Your task to perform on an android device: check android version Image 0: 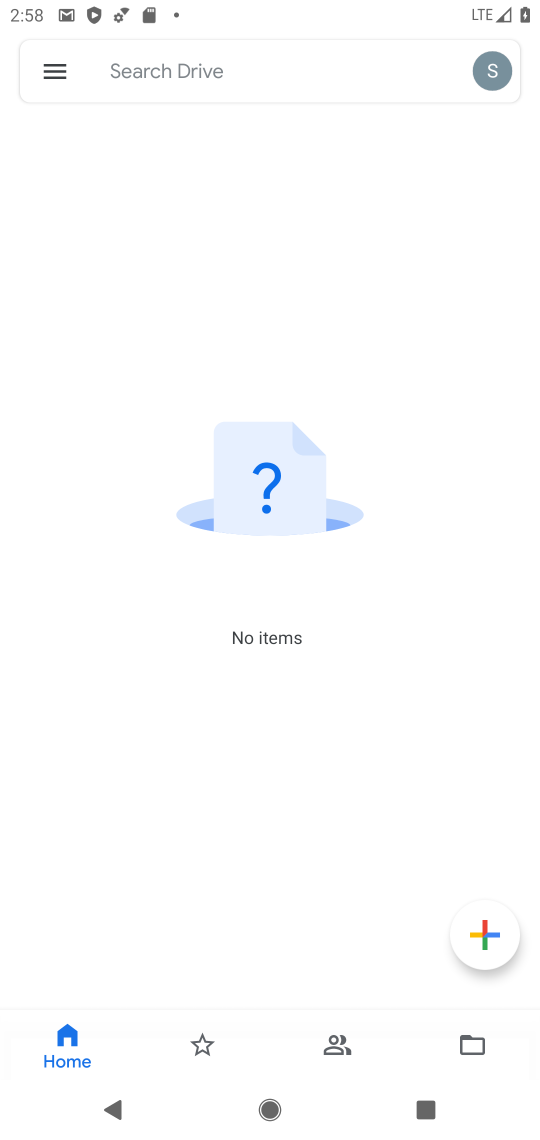
Step 0: press home button
Your task to perform on an android device: check android version Image 1: 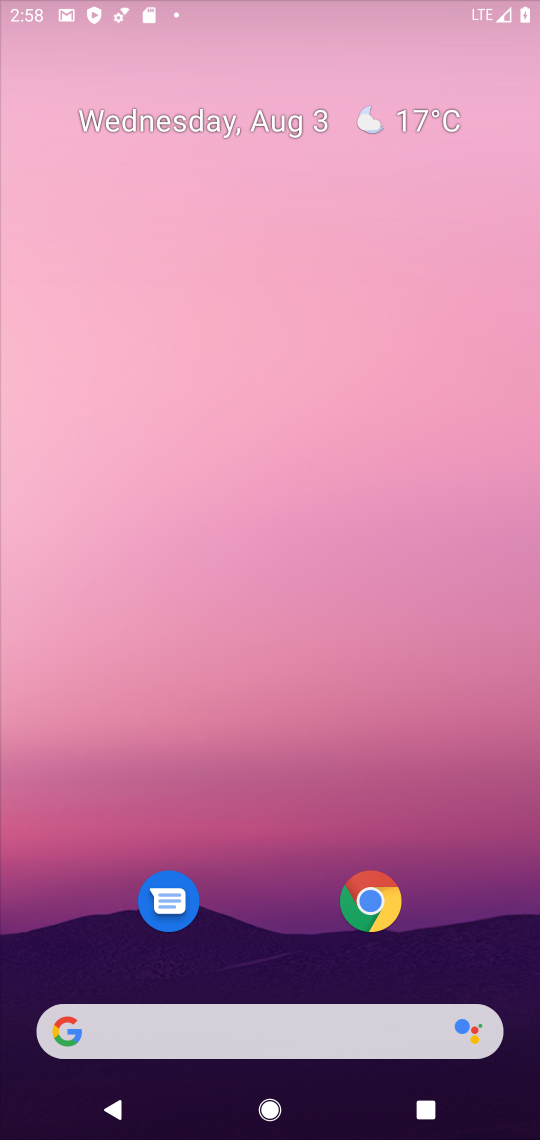
Step 1: drag from (224, 932) to (312, 256)
Your task to perform on an android device: check android version Image 2: 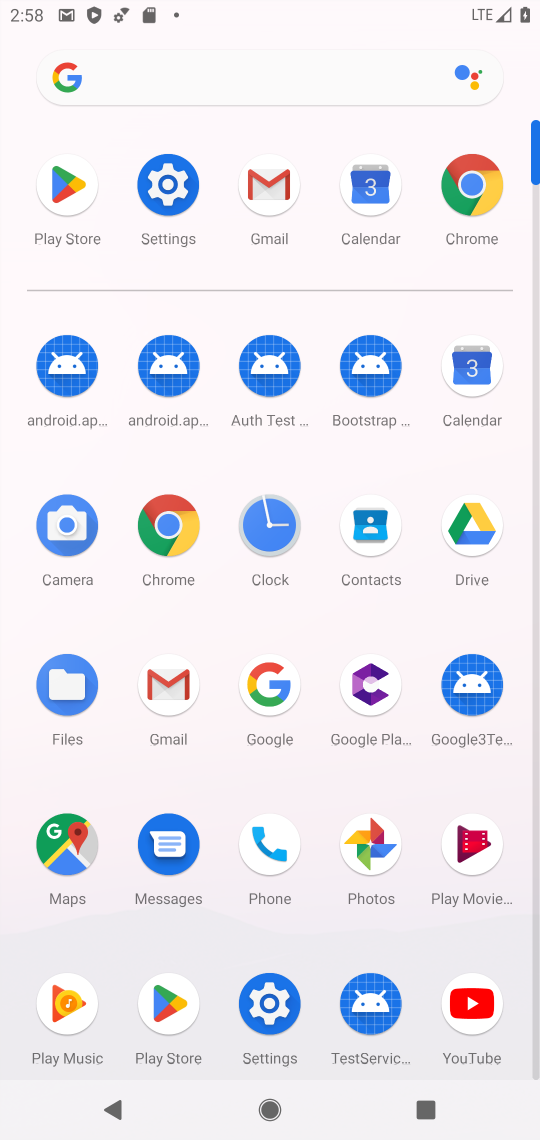
Step 2: click (168, 205)
Your task to perform on an android device: check android version Image 3: 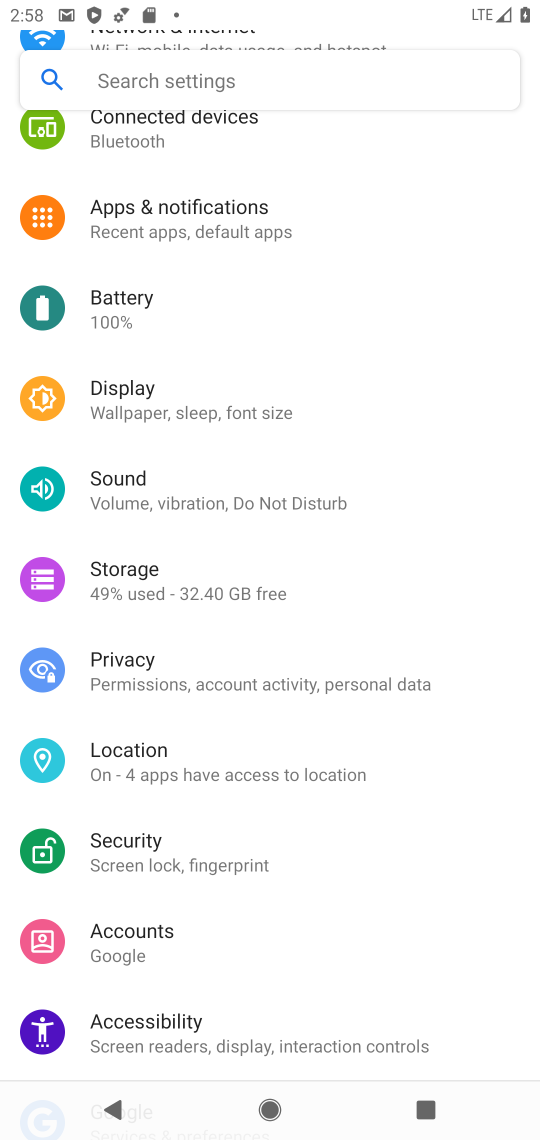
Step 3: drag from (215, 1007) to (301, 191)
Your task to perform on an android device: check android version Image 4: 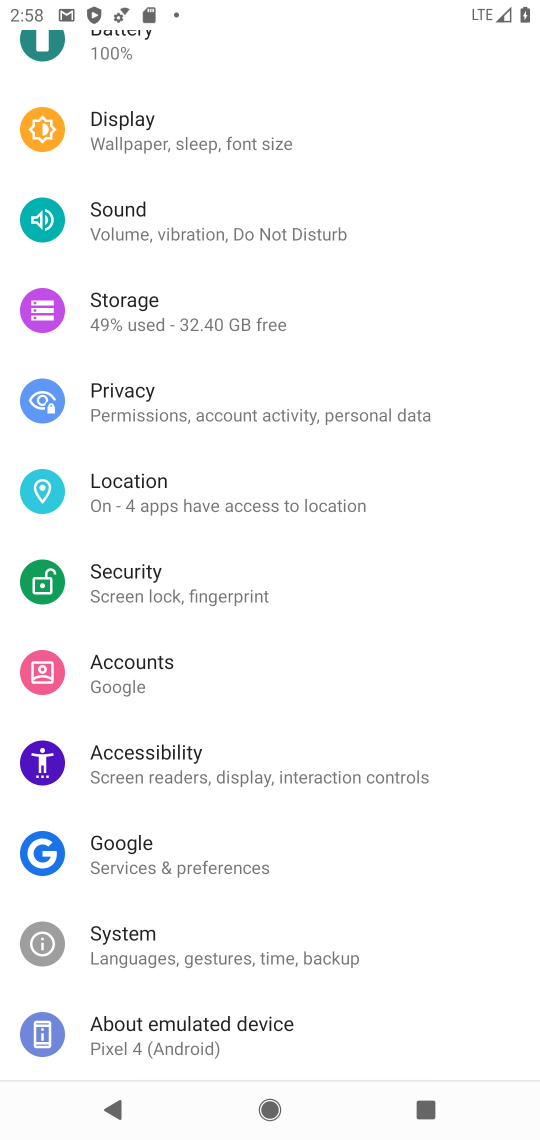
Step 4: click (134, 1036)
Your task to perform on an android device: check android version Image 5: 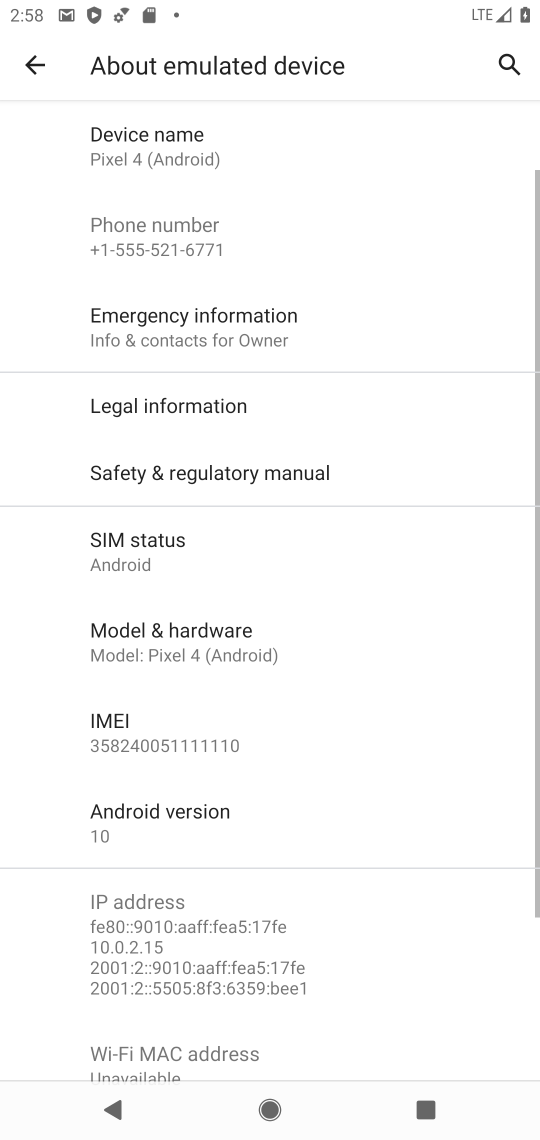
Step 5: click (158, 800)
Your task to perform on an android device: check android version Image 6: 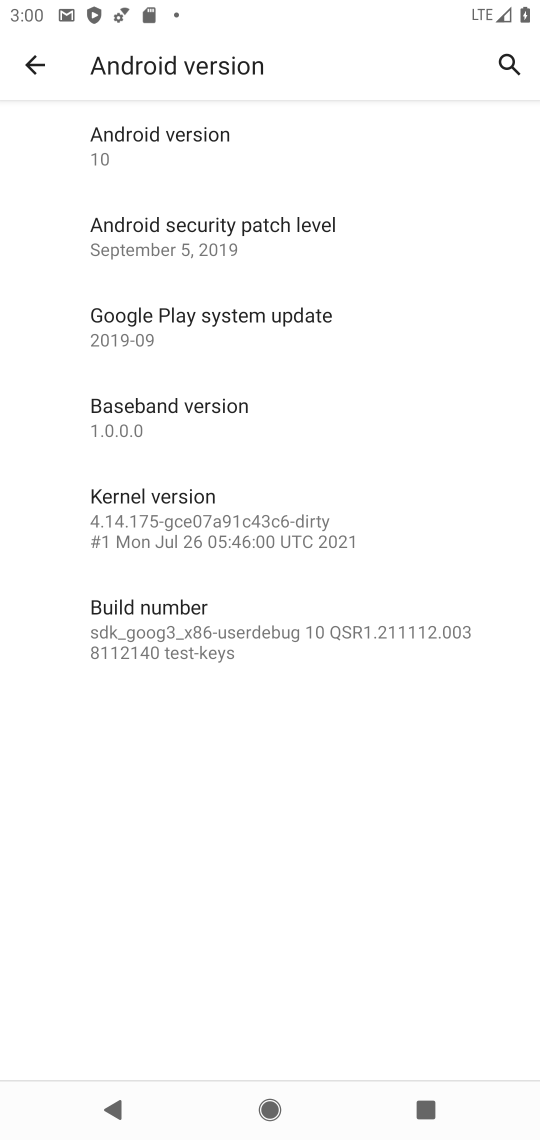
Step 6: task complete